Your task to perform on an android device: find snoozed emails in the gmail app Image 0: 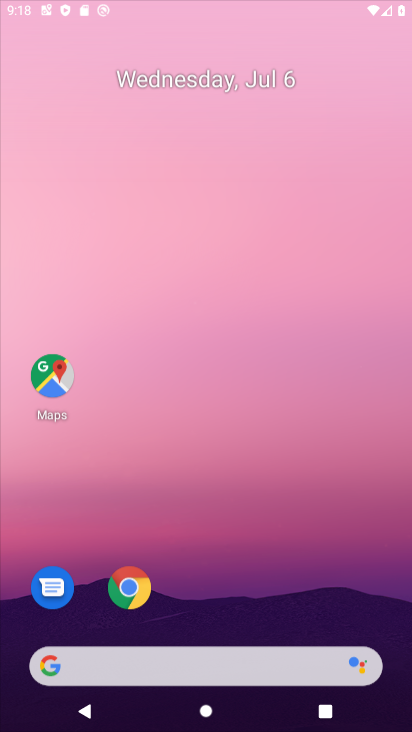
Step 0: drag from (168, 552) to (346, 25)
Your task to perform on an android device: find snoozed emails in the gmail app Image 1: 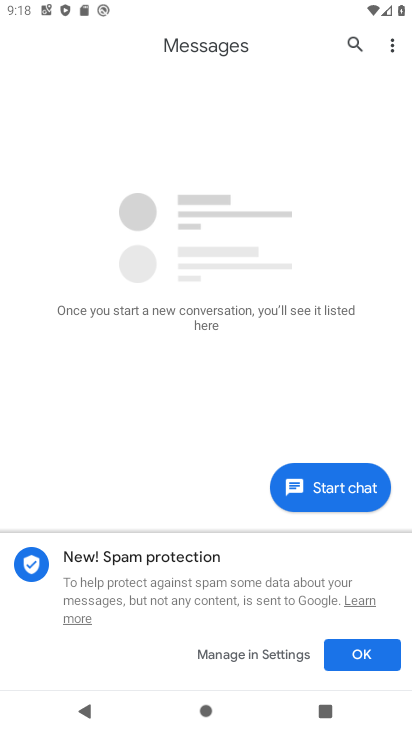
Step 1: press home button
Your task to perform on an android device: find snoozed emails in the gmail app Image 2: 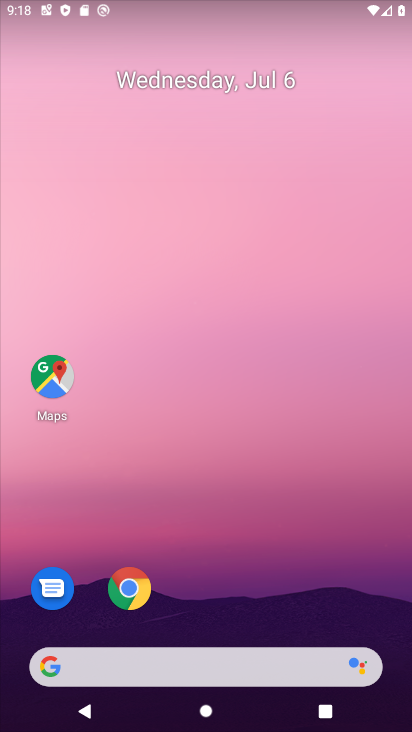
Step 2: drag from (217, 667) to (359, 55)
Your task to perform on an android device: find snoozed emails in the gmail app Image 3: 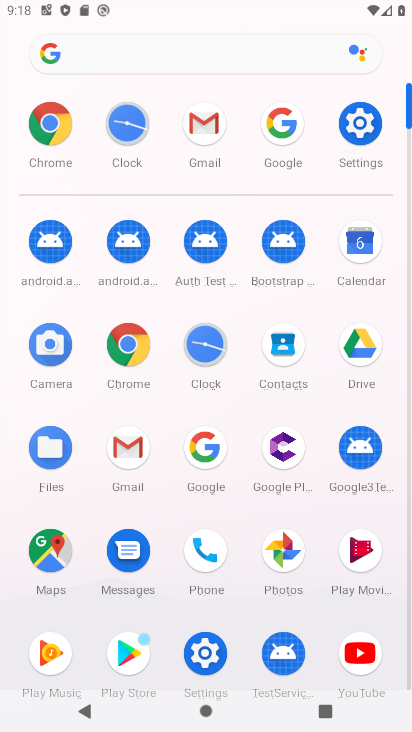
Step 3: click (207, 117)
Your task to perform on an android device: find snoozed emails in the gmail app Image 4: 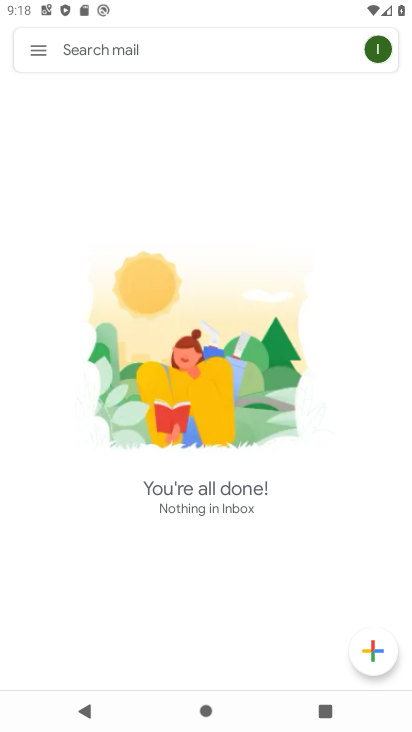
Step 4: click (35, 41)
Your task to perform on an android device: find snoozed emails in the gmail app Image 5: 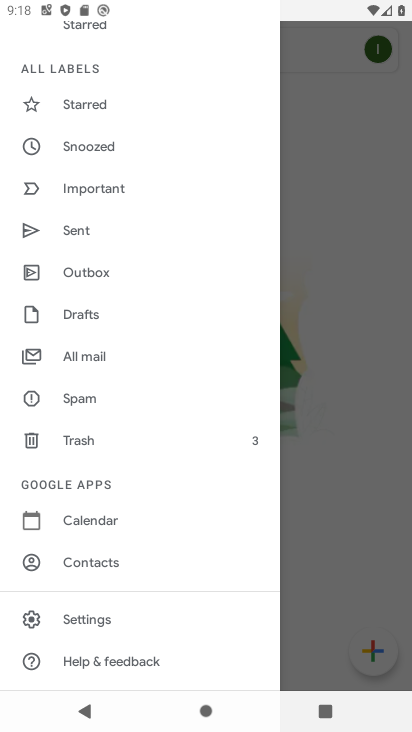
Step 5: click (107, 144)
Your task to perform on an android device: find snoozed emails in the gmail app Image 6: 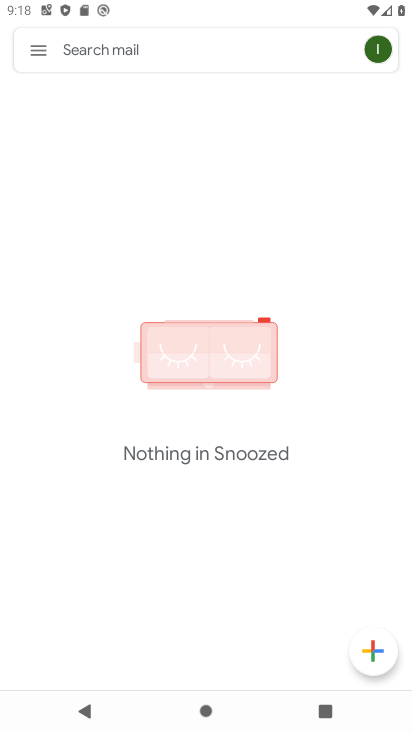
Step 6: task complete